Your task to perform on an android device: Play the last video I watched on Youtube Image 0: 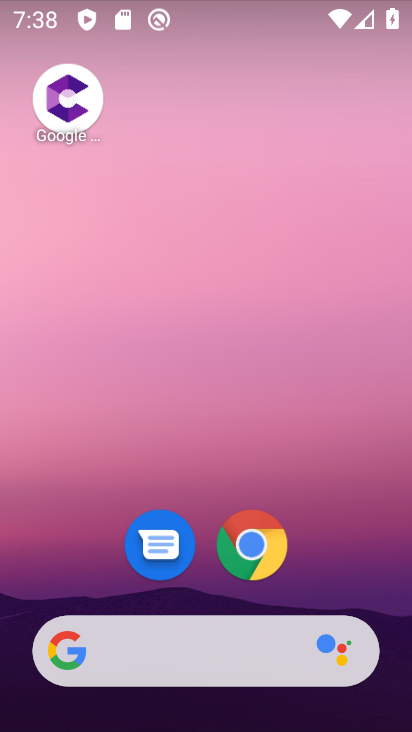
Step 0: drag from (358, 556) to (257, 5)
Your task to perform on an android device: Play the last video I watched on Youtube Image 1: 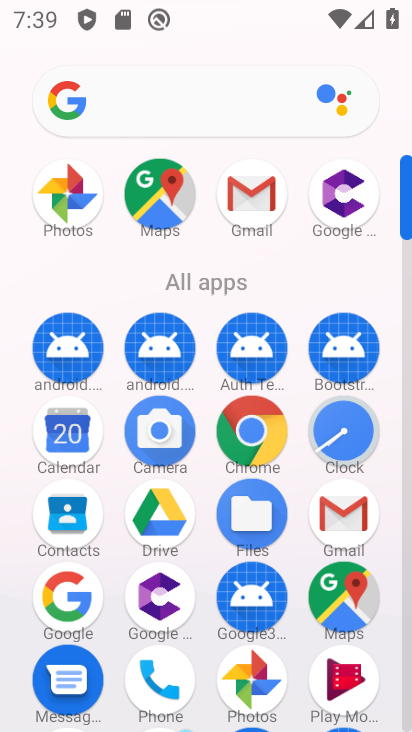
Step 1: click (410, 717)
Your task to perform on an android device: Play the last video I watched on Youtube Image 2: 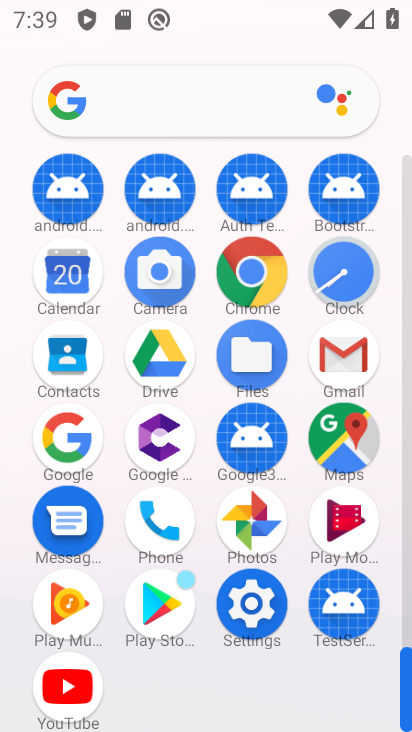
Step 2: click (60, 680)
Your task to perform on an android device: Play the last video I watched on Youtube Image 3: 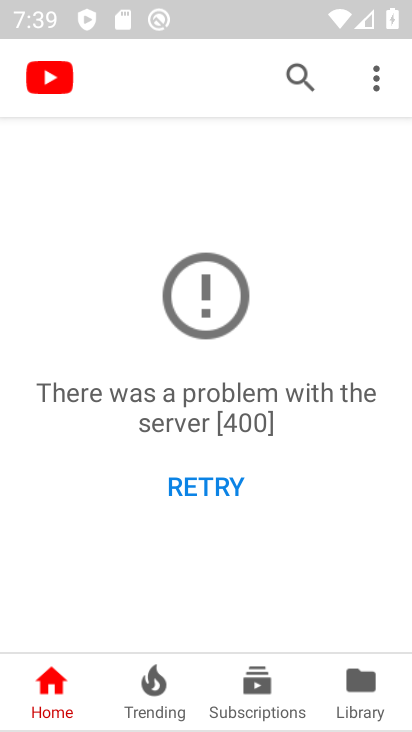
Step 3: click (366, 669)
Your task to perform on an android device: Play the last video I watched on Youtube Image 4: 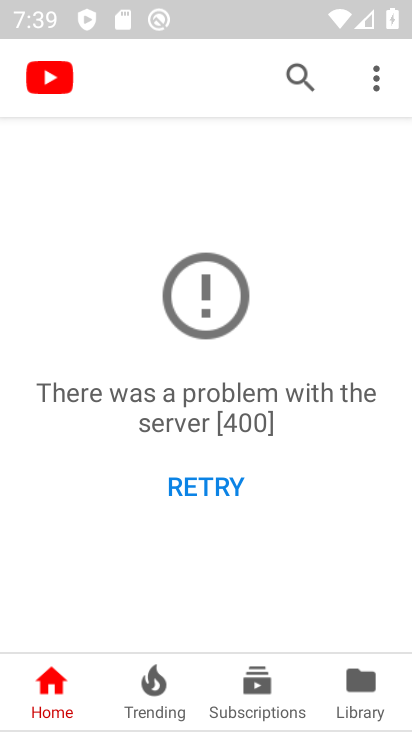
Step 4: task complete